Your task to perform on an android device: refresh tabs in the chrome app Image 0: 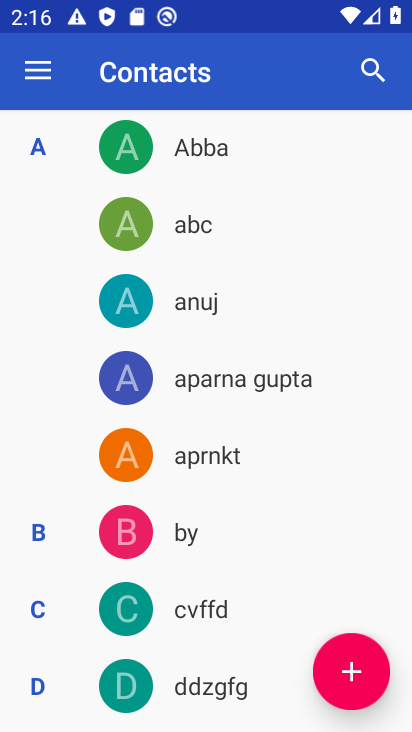
Step 0: press back button
Your task to perform on an android device: refresh tabs in the chrome app Image 1: 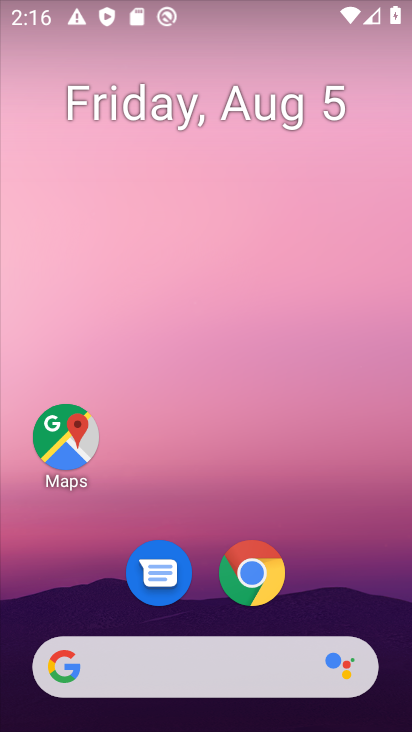
Step 1: drag from (384, 576) to (290, 83)
Your task to perform on an android device: refresh tabs in the chrome app Image 2: 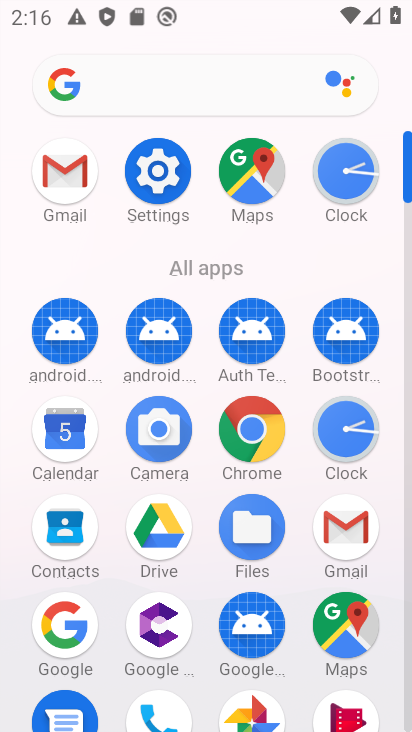
Step 2: click (267, 437)
Your task to perform on an android device: refresh tabs in the chrome app Image 3: 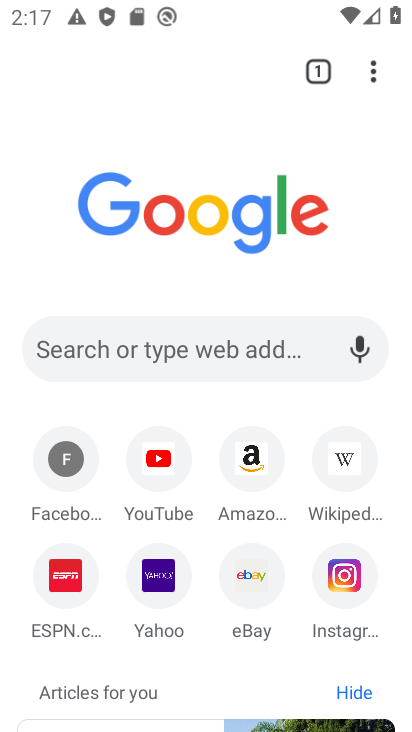
Step 3: click (361, 82)
Your task to perform on an android device: refresh tabs in the chrome app Image 4: 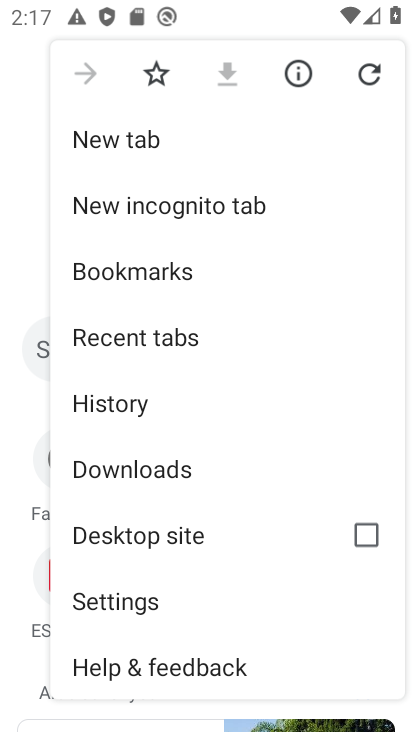
Step 4: click (372, 65)
Your task to perform on an android device: refresh tabs in the chrome app Image 5: 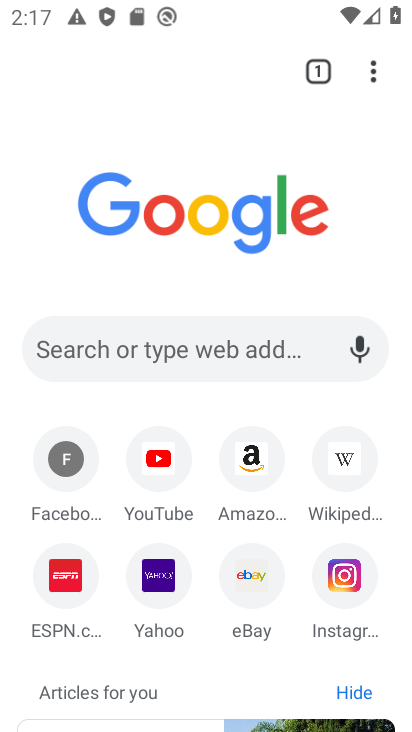
Step 5: click (372, 65)
Your task to perform on an android device: refresh tabs in the chrome app Image 6: 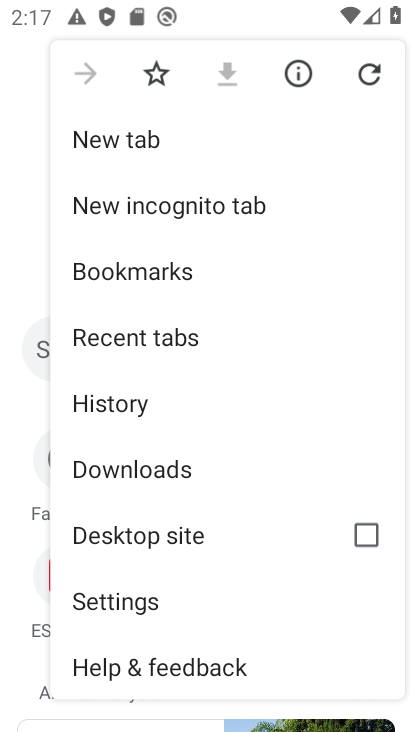
Step 6: click (374, 82)
Your task to perform on an android device: refresh tabs in the chrome app Image 7: 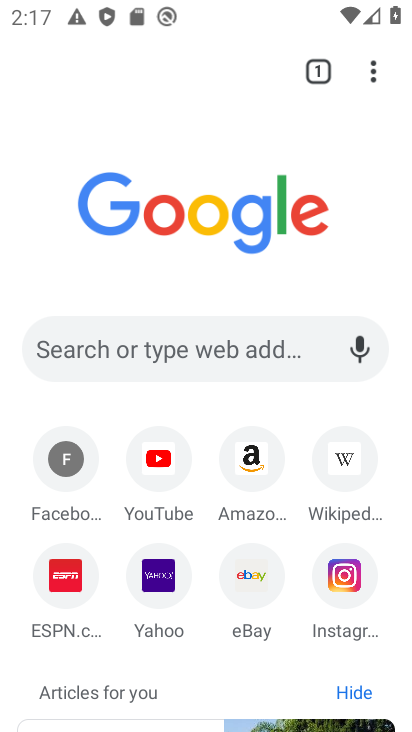
Step 7: task complete